Your task to perform on an android device: open chrome privacy settings Image 0: 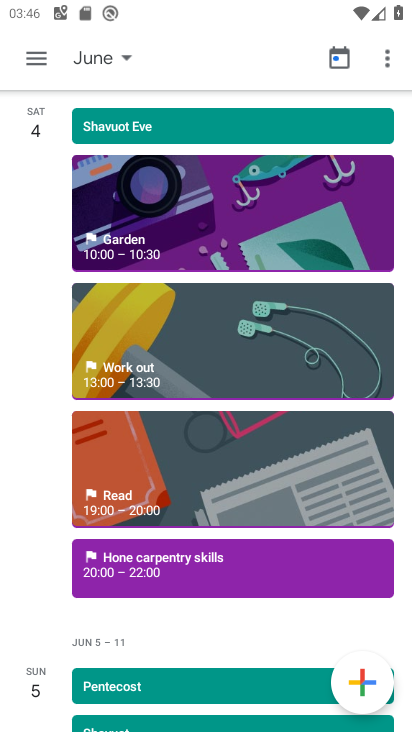
Step 0: press home button
Your task to perform on an android device: open chrome privacy settings Image 1: 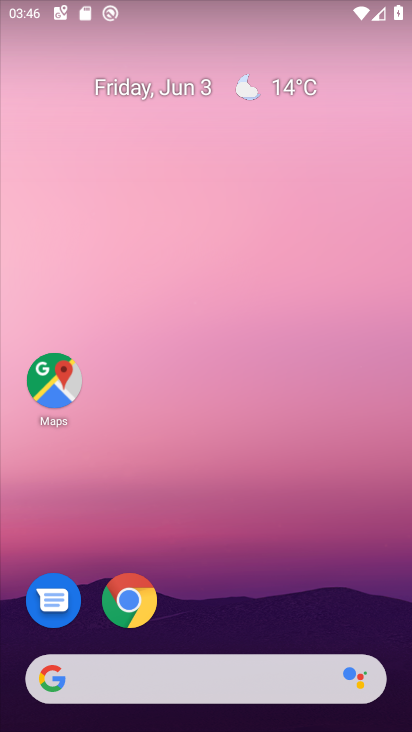
Step 1: click (128, 600)
Your task to perform on an android device: open chrome privacy settings Image 2: 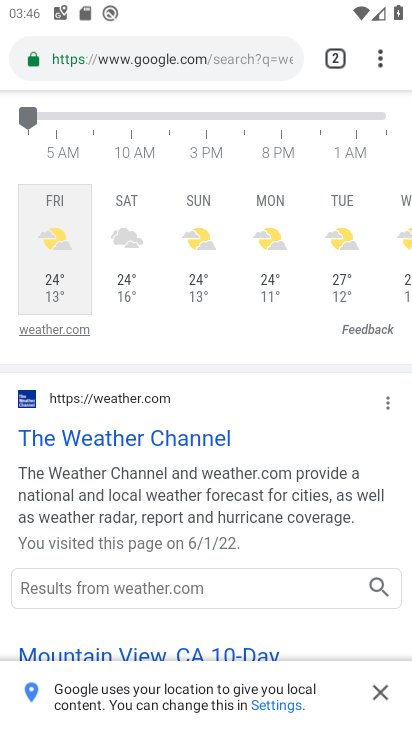
Step 2: drag from (381, 47) to (214, 631)
Your task to perform on an android device: open chrome privacy settings Image 3: 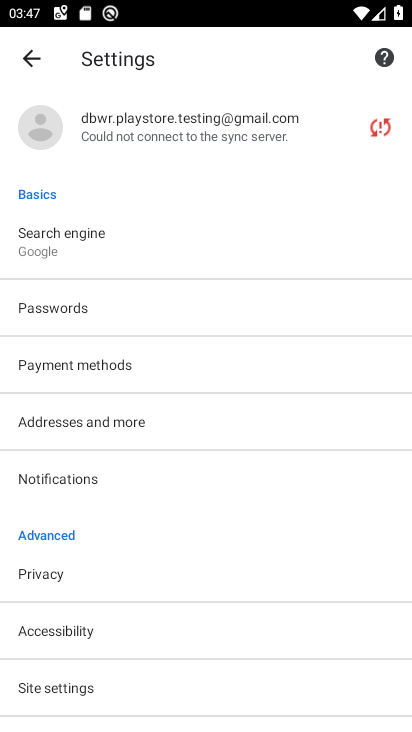
Step 3: click (70, 578)
Your task to perform on an android device: open chrome privacy settings Image 4: 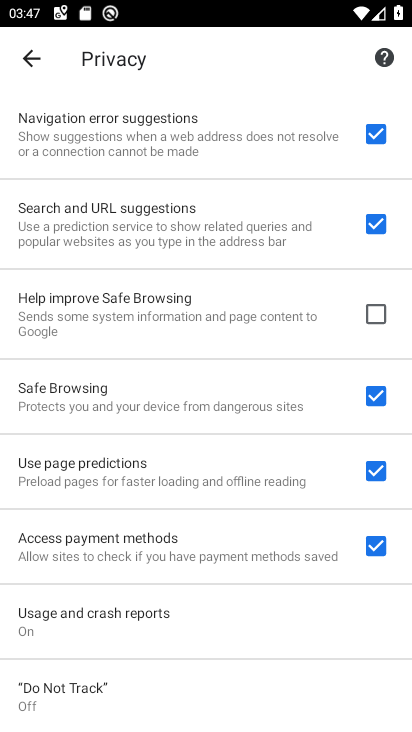
Step 4: task complete